Your task to perform on an android device: turn notification dots on Image 0: 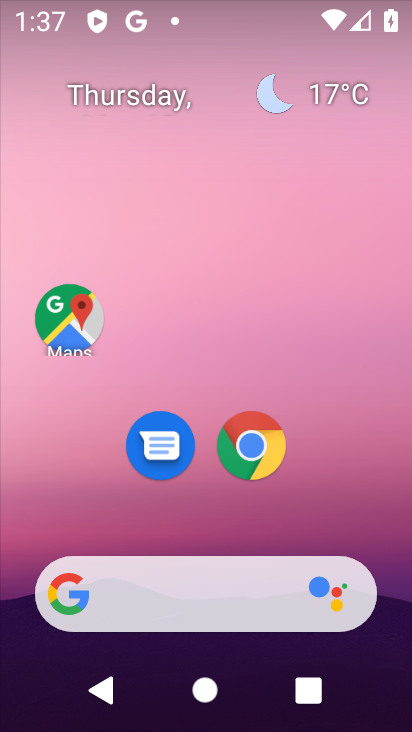
Step 0: drag from (350, 485) to (244, 9)
Your task to perform on an android device: turn notification dots on Image 1: 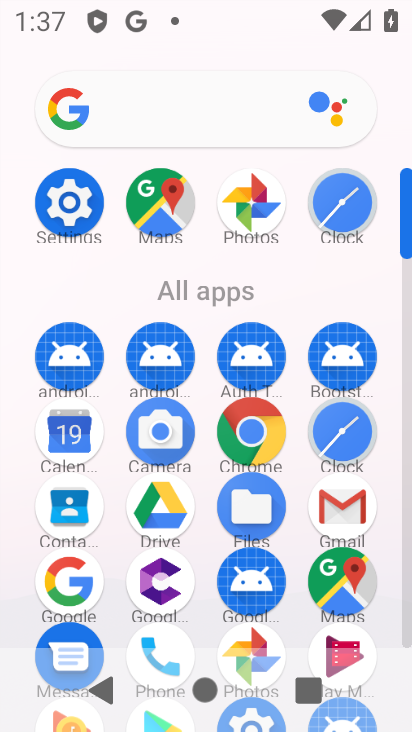
Step 1: click (67, 204)
Your task to perform on an android device: turn notification dots on Image 2: 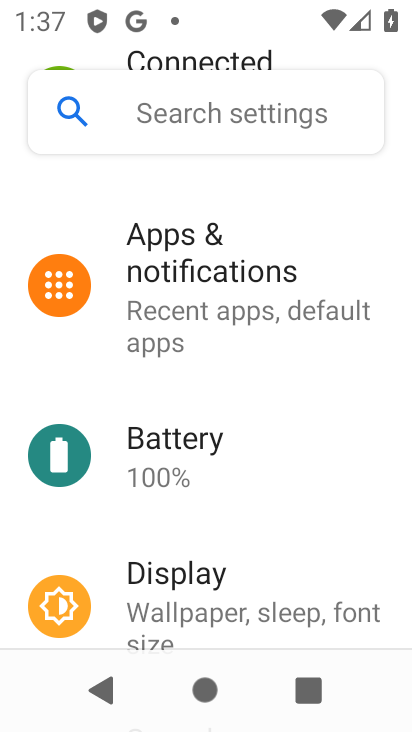
Step 2: drag from (244, 517) to (240, 199)
Your task to perform on an android device: turn notification dots on Image 3: 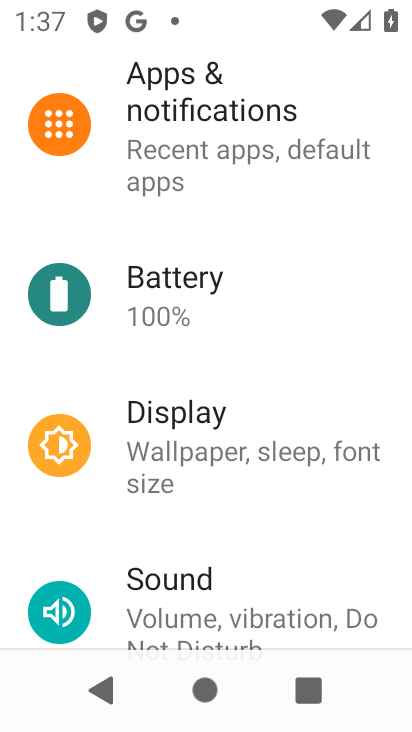
Step 3: click (197, 95)
Your task to perform on an android device: turn notification dots on Image 4: 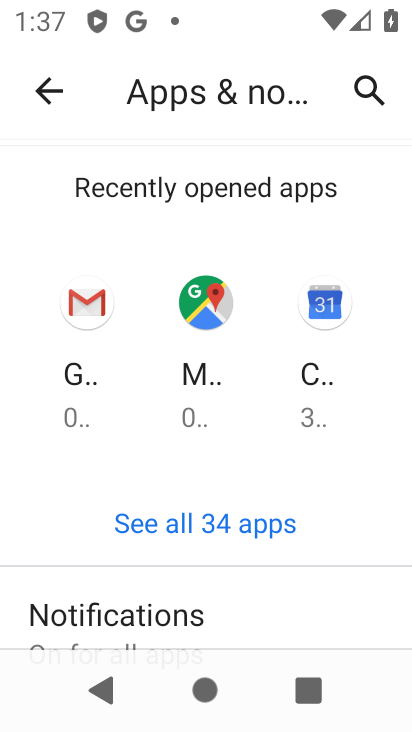
Step 4: drag from (259, 447) to (252, 186)
Your task to perform on an android device: turn notification dots on Image 5: 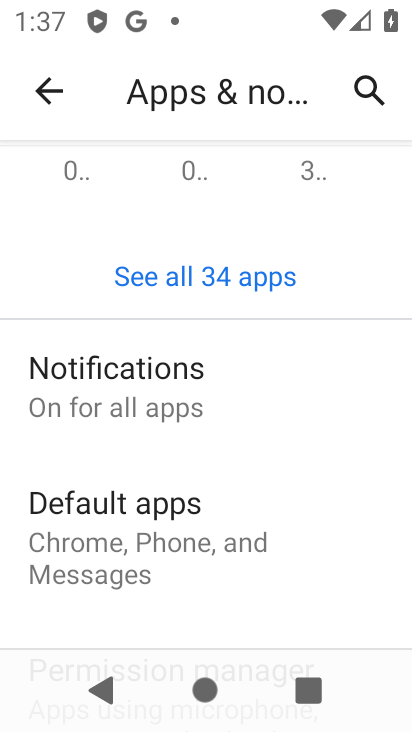
Step 5: click (120, 366)
Your task to perform on an android device: turn notification dots on Image 6: 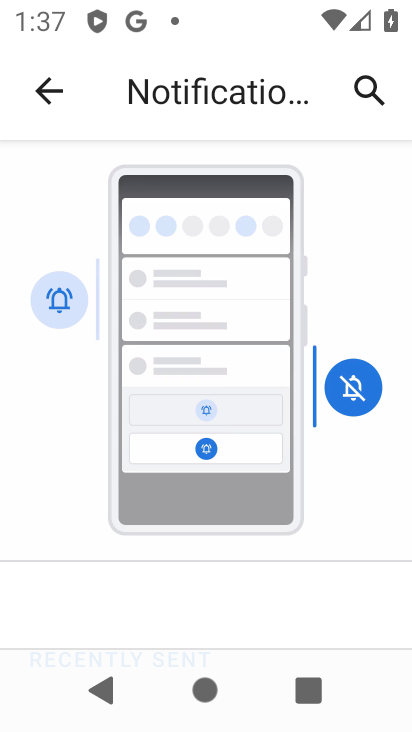
Step 6: drag from (278, 580) to (254, 177)
Your task to perform on an android device: turn notification dots on Image 7: 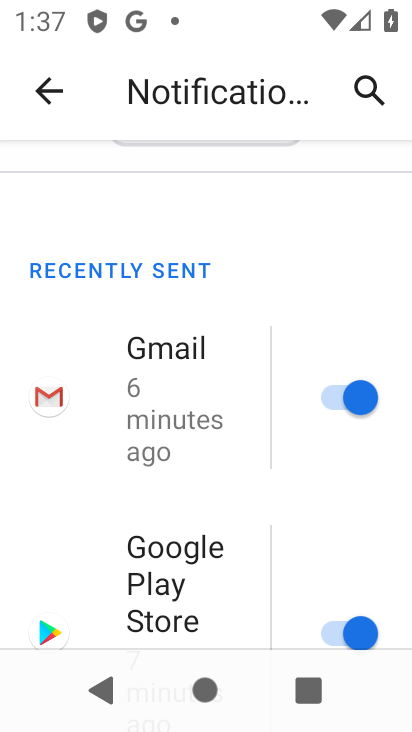
Step 7: drag from (310, 536) to (255, 35)
Your task to perform on an android device: turn notification dots on Image 8: 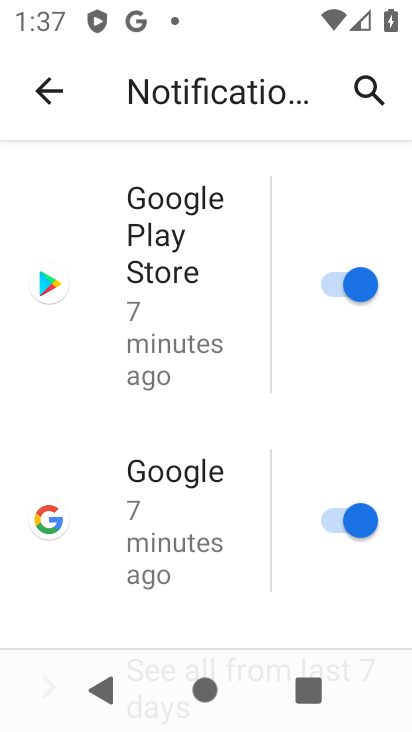
Step 8: drag from (233, 576) to (158, 213)
Your task to perform on an android device: turn notification dots on Image 9: 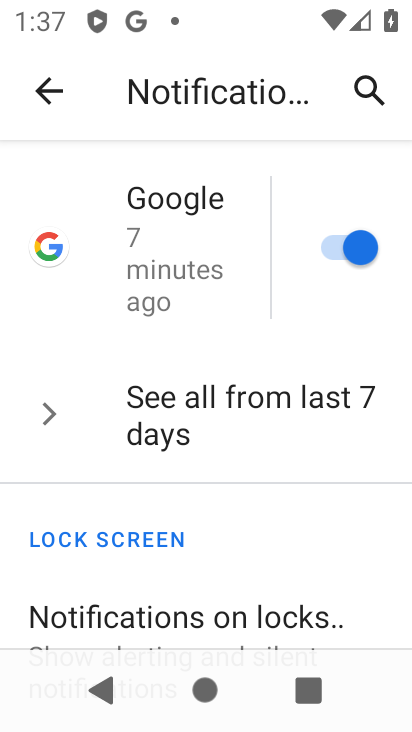
Step 9: drag from (216, 551) to (208, 183)
Your task to perform on an android device: turn notification dots on Image 10: 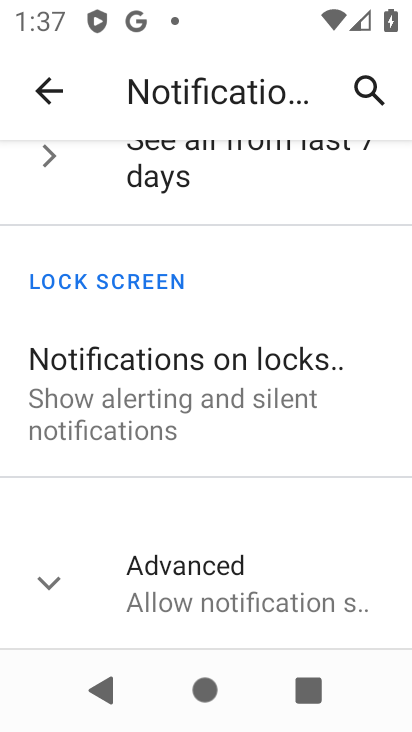
Step 10: click (55, 582)
Your task to perform on an android device: turn notification dots on Image 11: 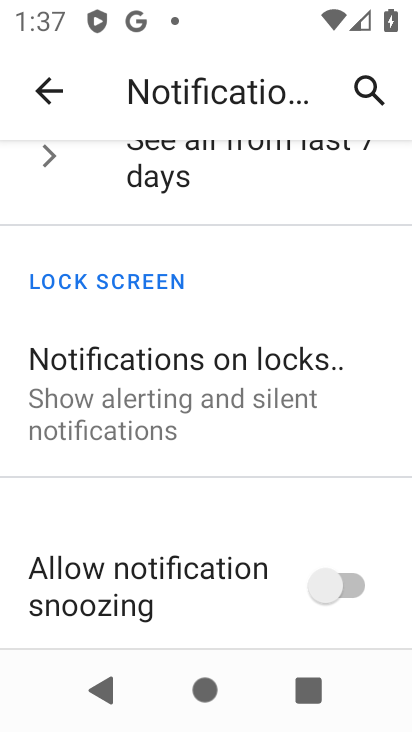
Step 11: drag from (223, 475) to (211, 143)
Your task to perform on an android device: turn notification dots on Image 12: 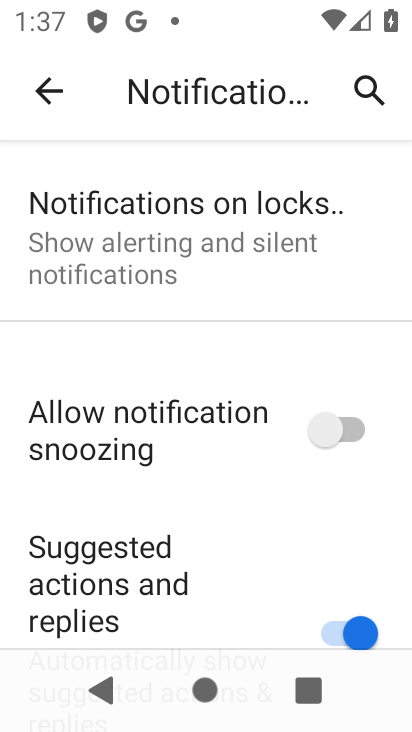
Step 12: drag from (284, 550) to (229, 295)
Your task to perform on an android device: turn notification dots on Image 13: 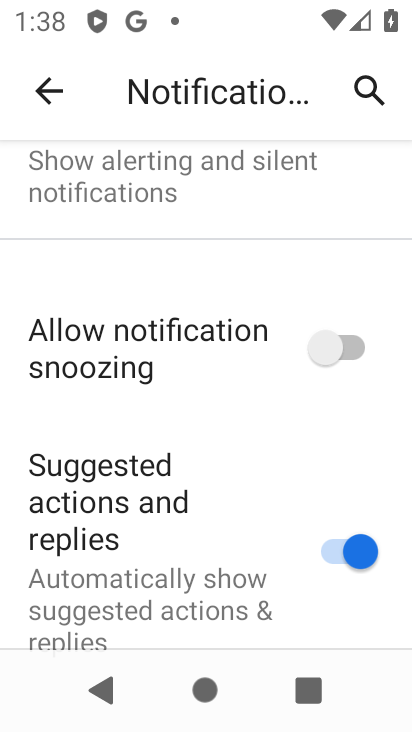
Step 13: drag from (255, 518) to (224, 167)
Your task to perform on an android device: turn notification dots on Image 14: 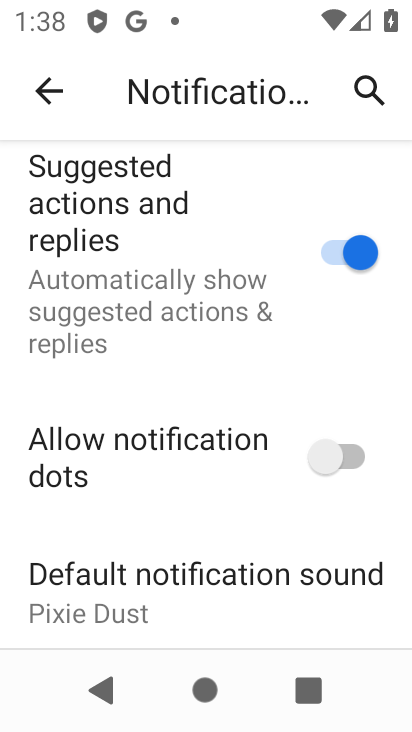
Step 14: click (328, 458)
Your task to perform on an android device: turn notification dots on Image 15: 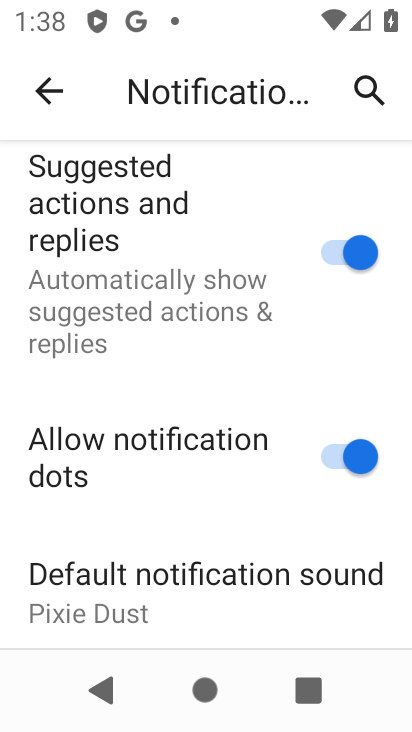
Step 15: task complete